Your task to perform on an android device: check out phone information Image 0: 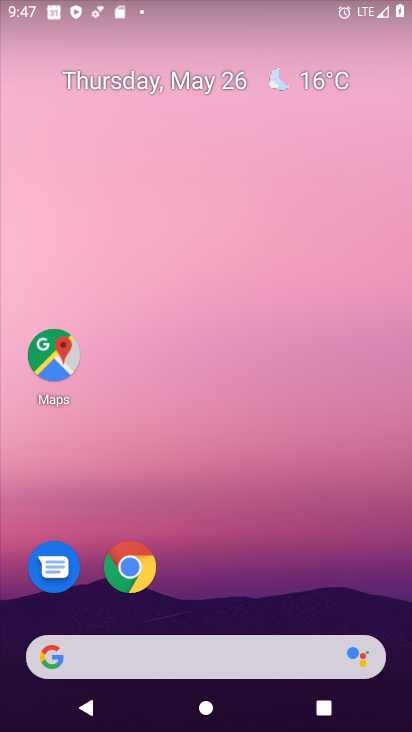
Step 0: drag from (398, 693) to (368, 182)
Your task to perform on an android device: check out phone information Image 1: 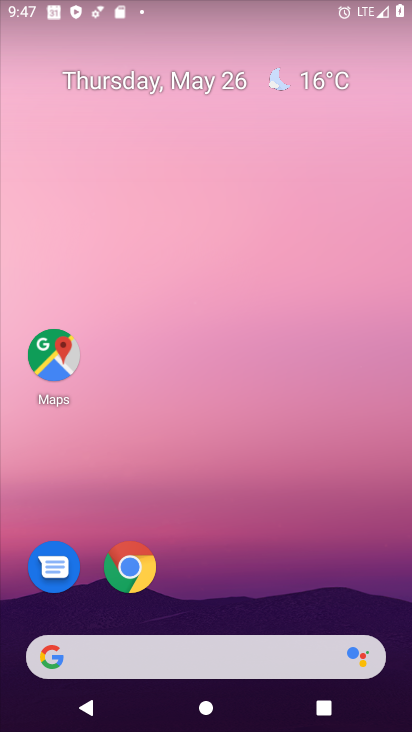
Step 1: drag from (393, 721) to (338, 28)
Your task to perform on an android device: check out phone information Image 2: 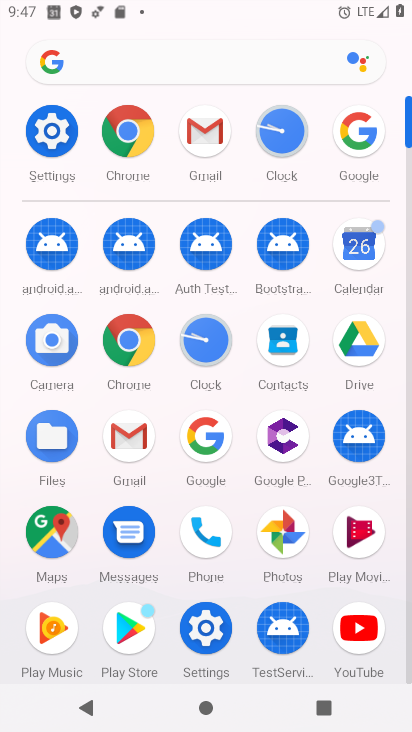
Step 2: click (40, 135)
Your task to perform on an android device: check out phone information Image 3: 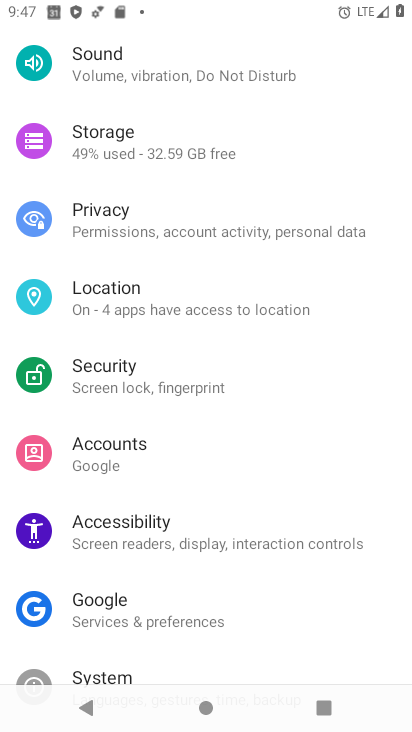
Step 3: drag from (344, 658) to (338, 239)
Your task to perform on an android device: check out phone information Image 4: 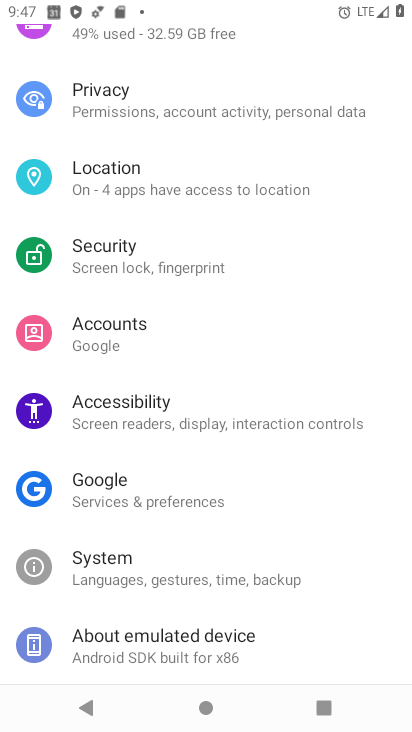
Step 4: click (82, 648)
Your task to perform on an android device: check out phone information Image 5: 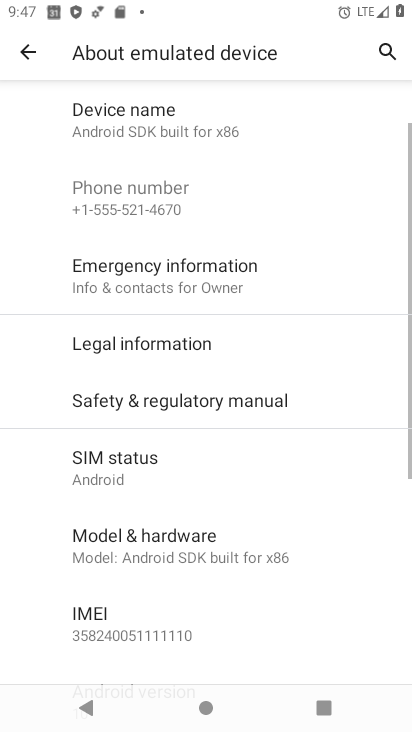
Step 5: task complete